Your task to perform on an android device: toggle location history Image 0: 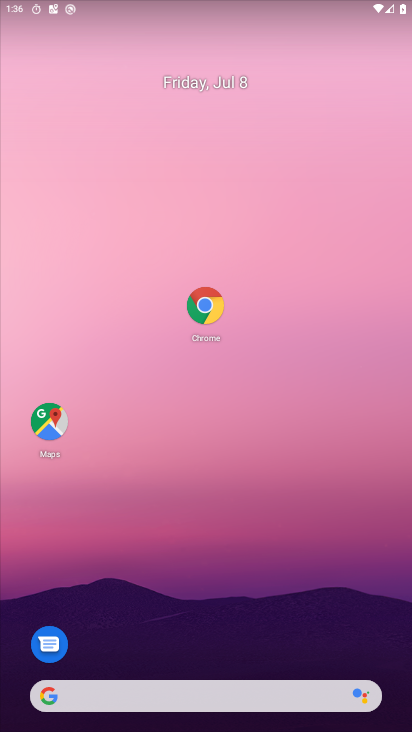
Step 0: drag from (166, 688) to (163, 113)
Your task to perform on an android device: toggle location history Image 1: 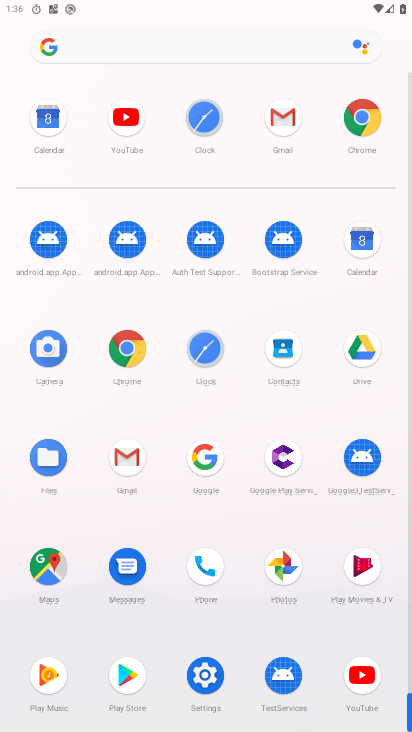
Step 1: click (208, 688)
Your task to perform on an android device: toggle location history Image 2: 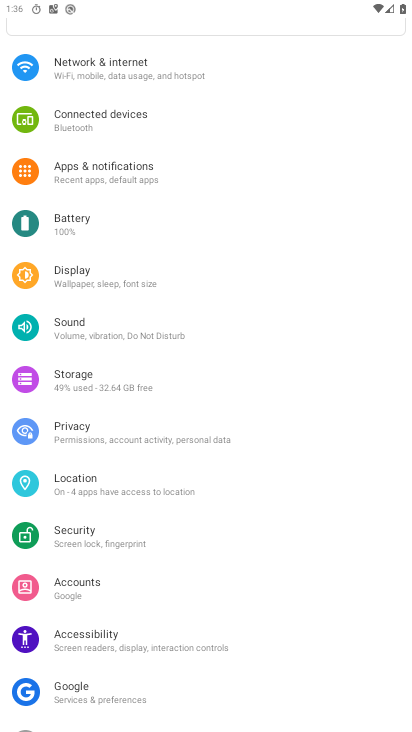
Step 2: click (107, 488)
Your task to perform on an android device: toggle location history Image 3: 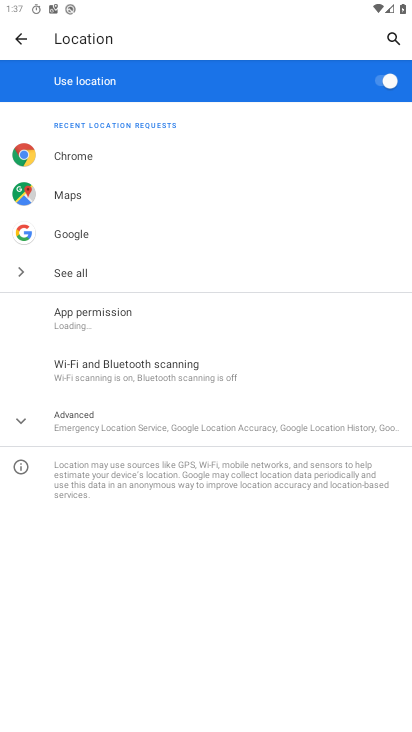
Step 3: click (132, 430)
Your task to perform on an android device: toggle location history Image 4: 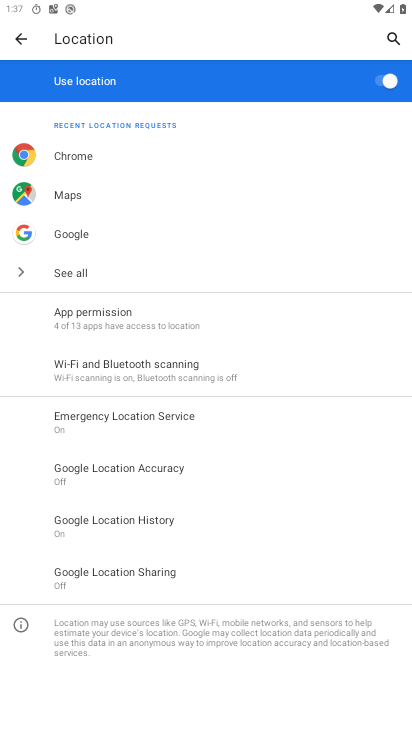
Step 4: click (130, 520)
Your task to perform on an android device: toggle location history Image 5: 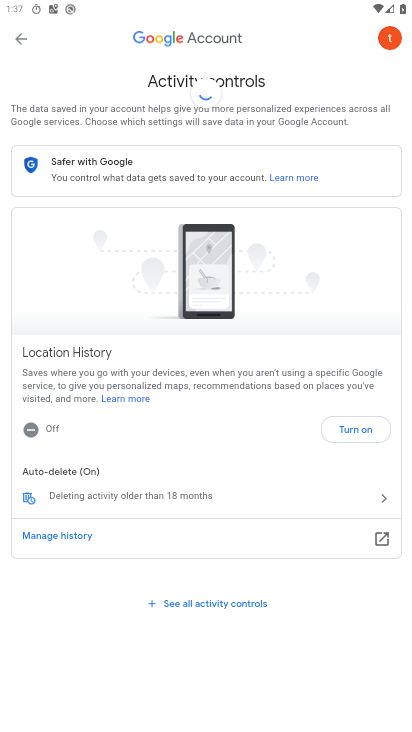
Step 5: click (362, 433)
Your task to perform on an android device: toggle location history Image 6: 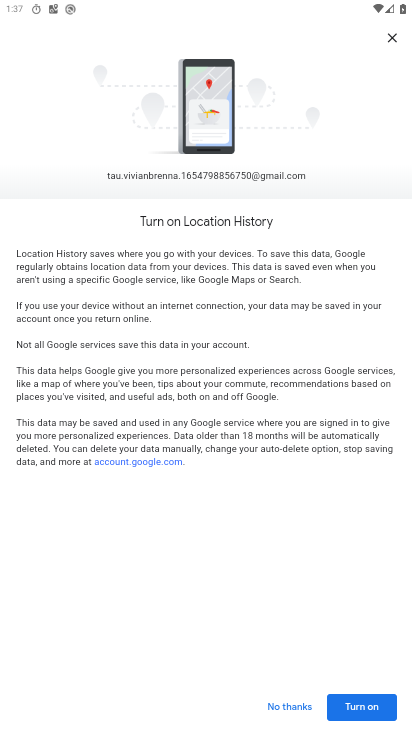
Step 6: click (365, 709)
Your task to perform on an android device: toggle location history Image 7: 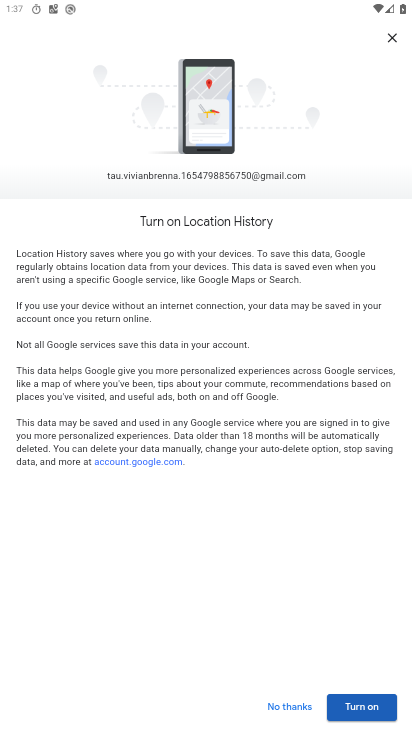
Step 7: click (365, 709)
Your task to perform on an android device: toggle location history Image 8: 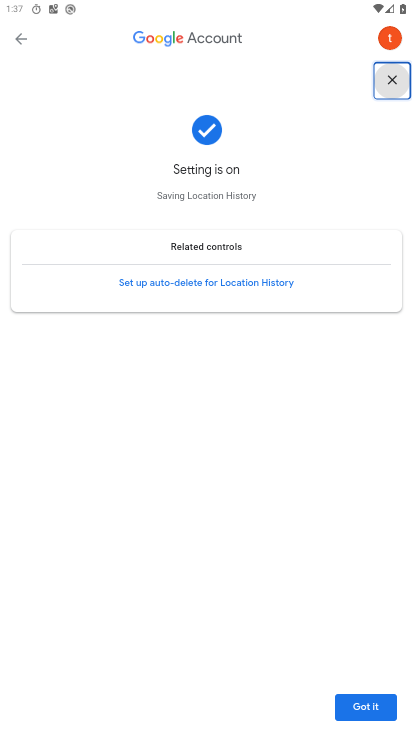
Step 8: click (365, 709)
Your task to perform on an android device: toggle location history Image 9: 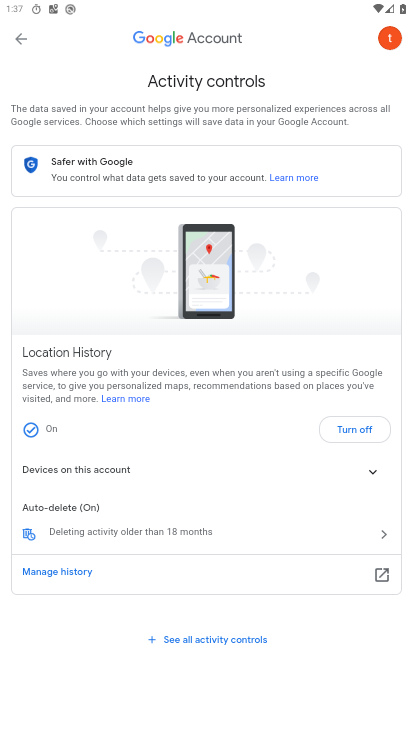
Step 9: task complete